Your task to perform on an android device: refresh tabs in the chrome app Image 0: 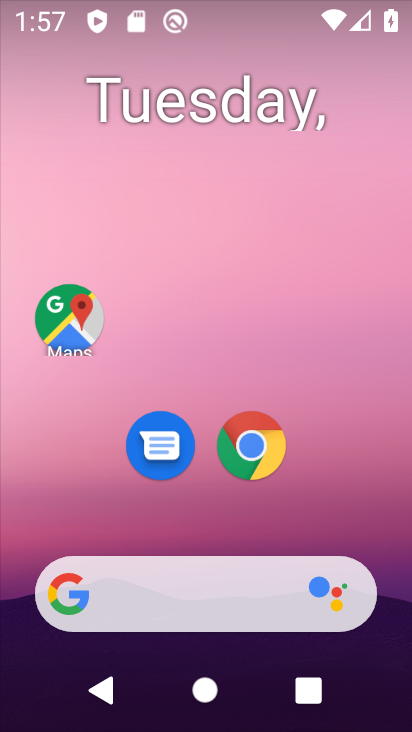
Step 0: click (254, 451)
Your task to perform on an android device: refresh tabs in the chrome app Image 1: 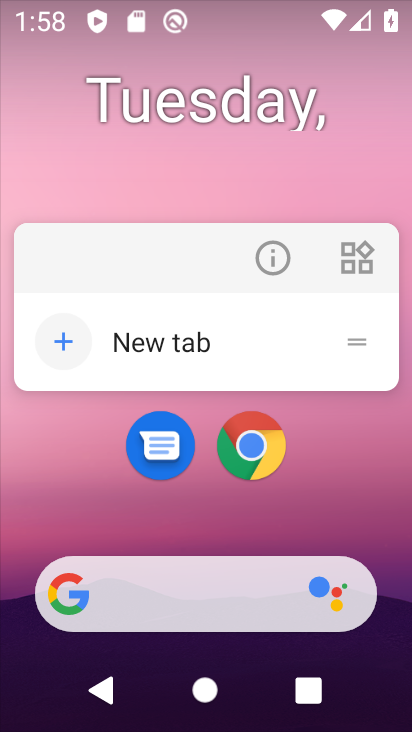
Step 1: click (176, 353)
Your task to perform on an android device: refresh tabs in the chrome app Image 2: 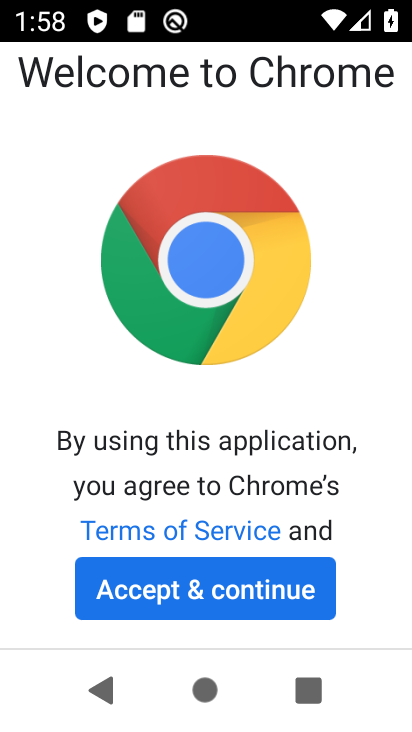
Step 2: click (180, 562)
Your task to perform on an android device: refresh tabs in the chrome app Image 3: 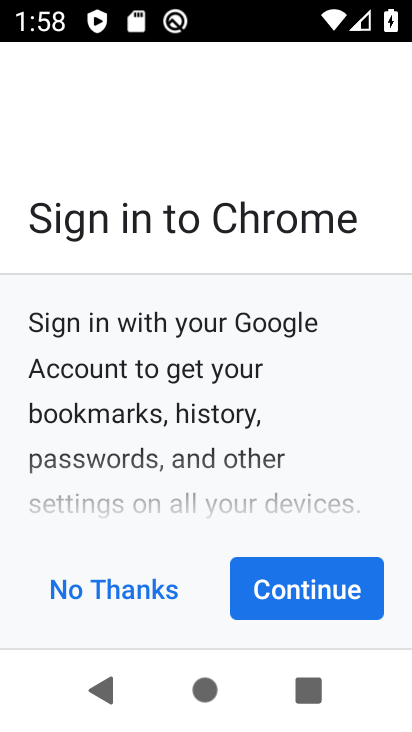
Step 3: click (302, 596)
Your task to perform on an android device: refresh tabs in the chrome app Image 4: 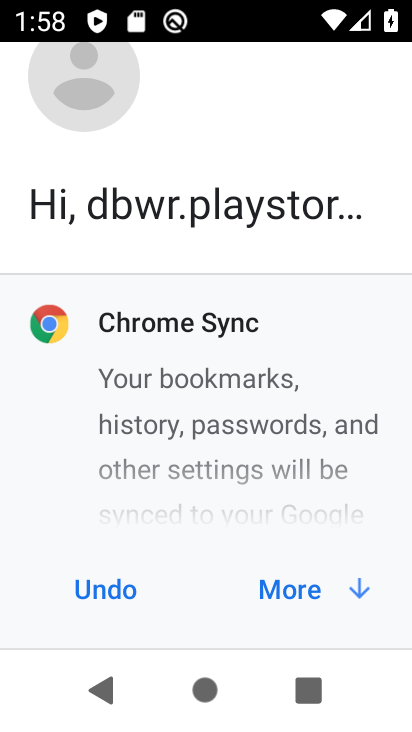
Step 4: click (302, 596)
Your task to perform on an android device: refresh tabs in the chrome app Image 5: 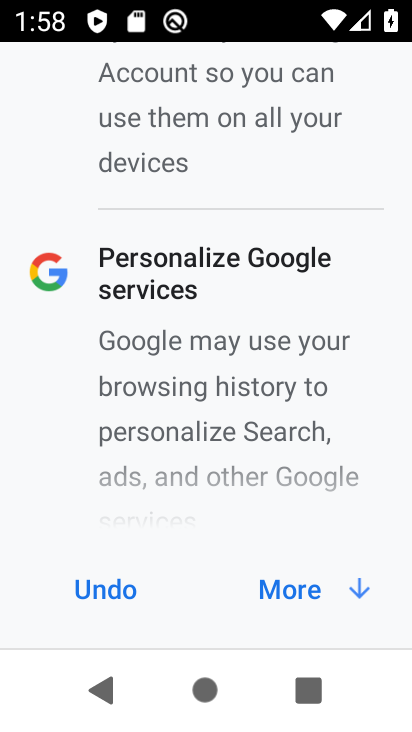
Step 5: click (302, 596)
Your task to perform on an android device: refresh tabs in the chrome app Image 6: 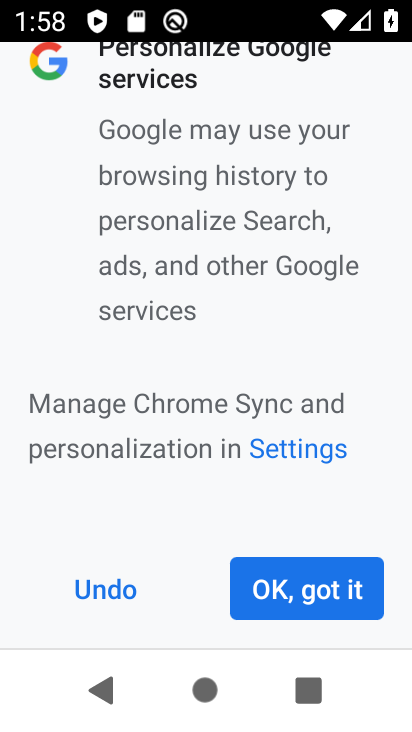
Step 6: click (302, 596)
Your task to perform on an android device: refresh tabs in the chrome app Image 7: 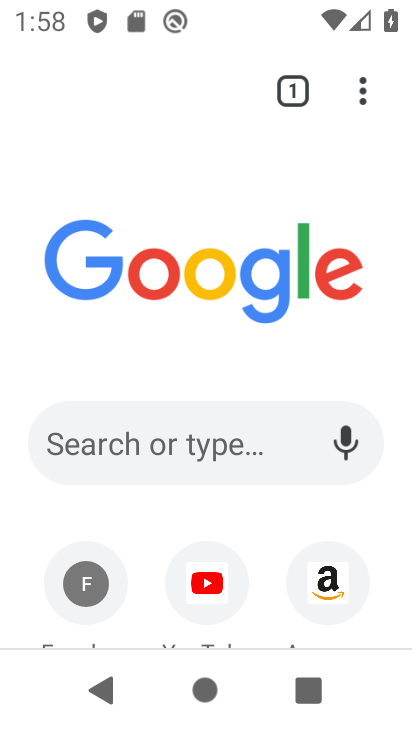
Step 7: click (351, 99)
Your task to perform on an android device: refresh tabs in the chrome app Image 8: 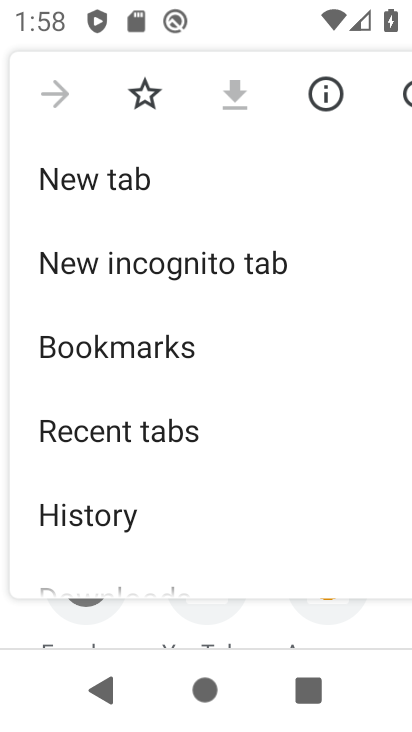
Step 8: click (394, 106)
Your task to perform on an android device: refresh tabs in the chrome app Image 9: 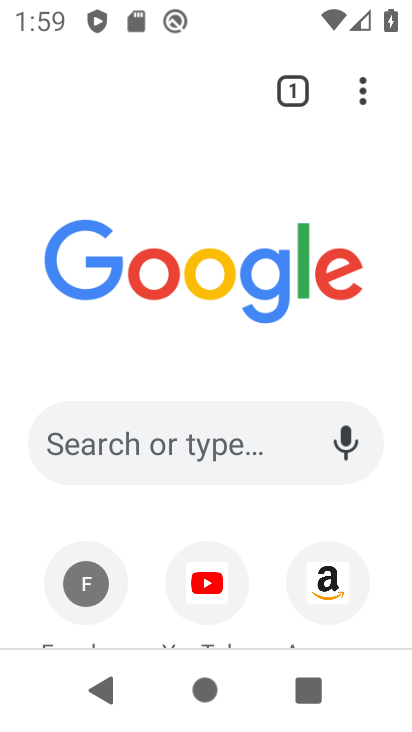
Step 9: task complete